Your task to perform on an android device: open app "Fetch Rewards" (install if not already installed) and go to login screen Image 0: 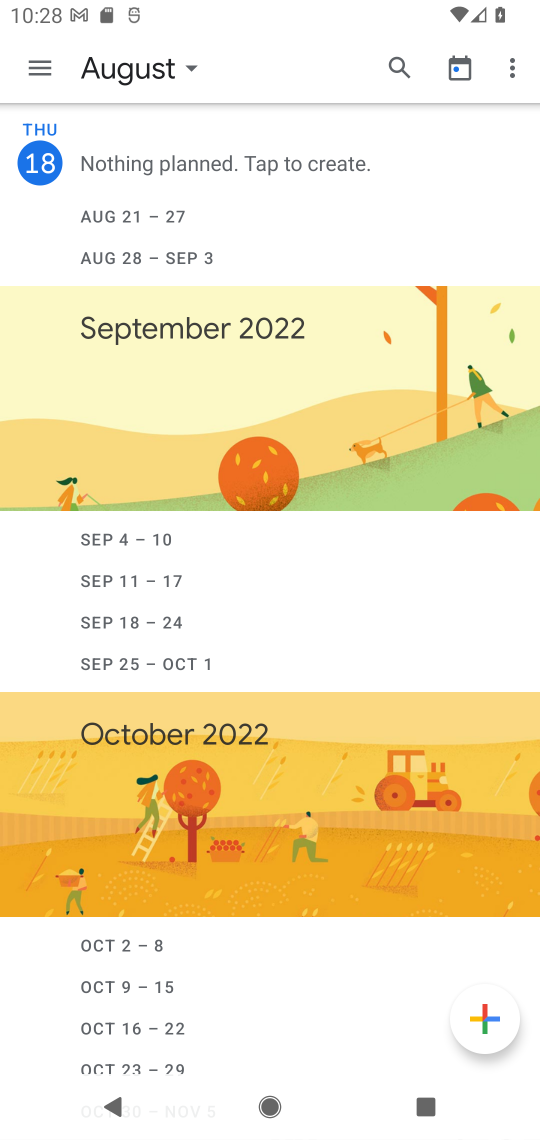
Step 0: press home button
Your task to perform on an android device: open app "Fetch Rewards" (install if not already installed) and go to login screen Image 1: 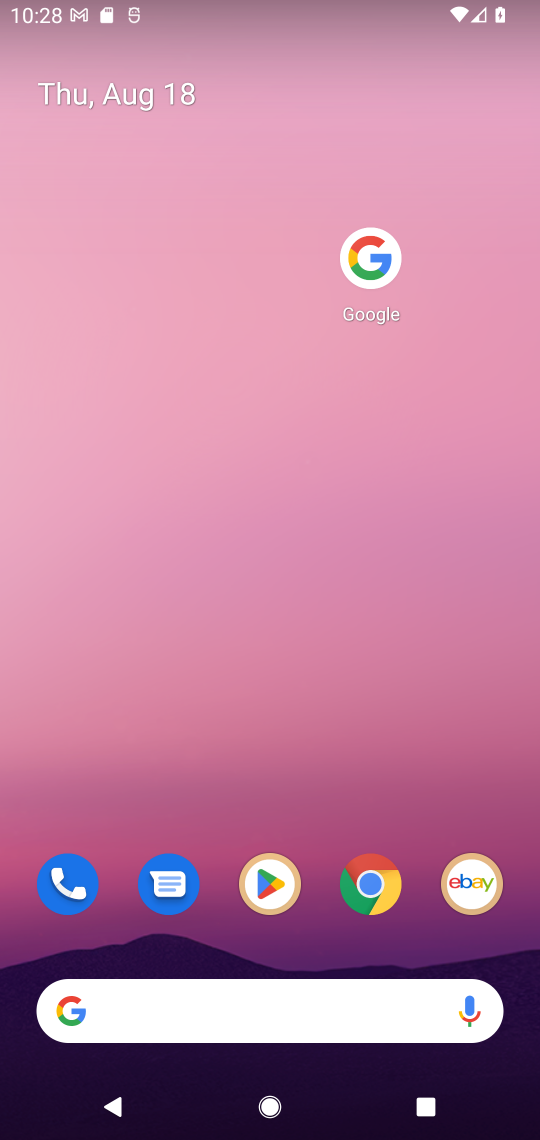
Step 1: click (291, 860)
Your task to perform on an android device: open app "Fetch Rewards" (install if not already installed) and go to login screen Image 2: 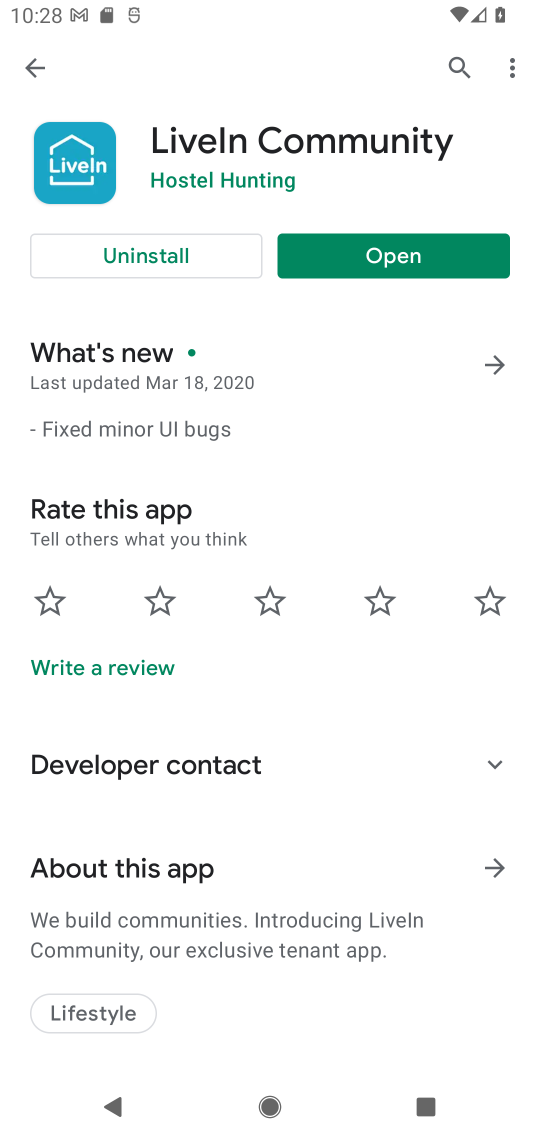
Step 2: click (461, 81)
Your task to perform on an android device: open app "Fetch Rewards" (install if not already installed) and go to login screen Image 3: 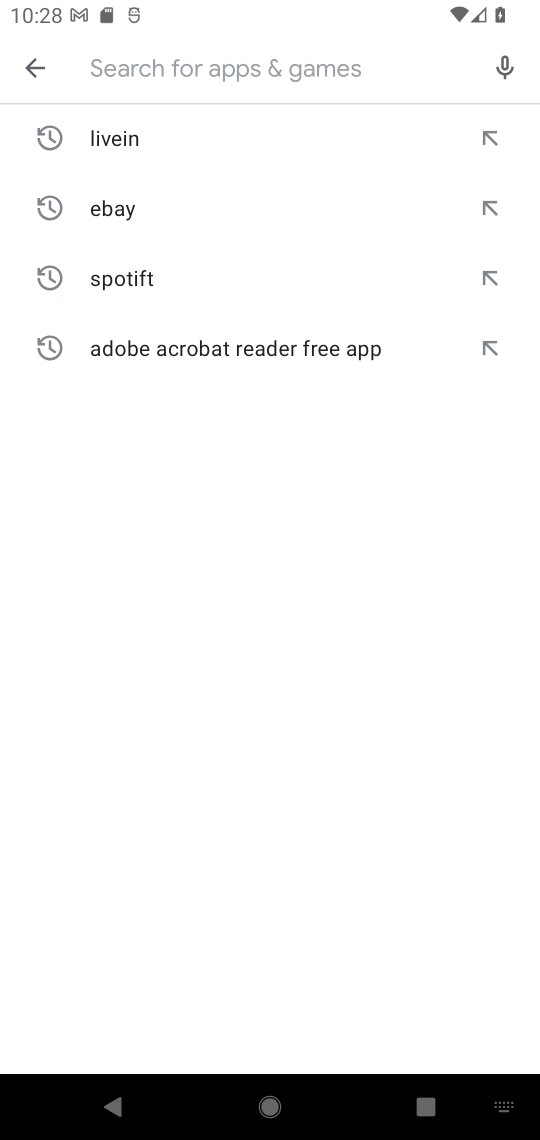
Step 3: type "fetch "
Your task to perform on an android device: open app "Fetch Rewards" (install if not already installed) and go to login screen Image 4: 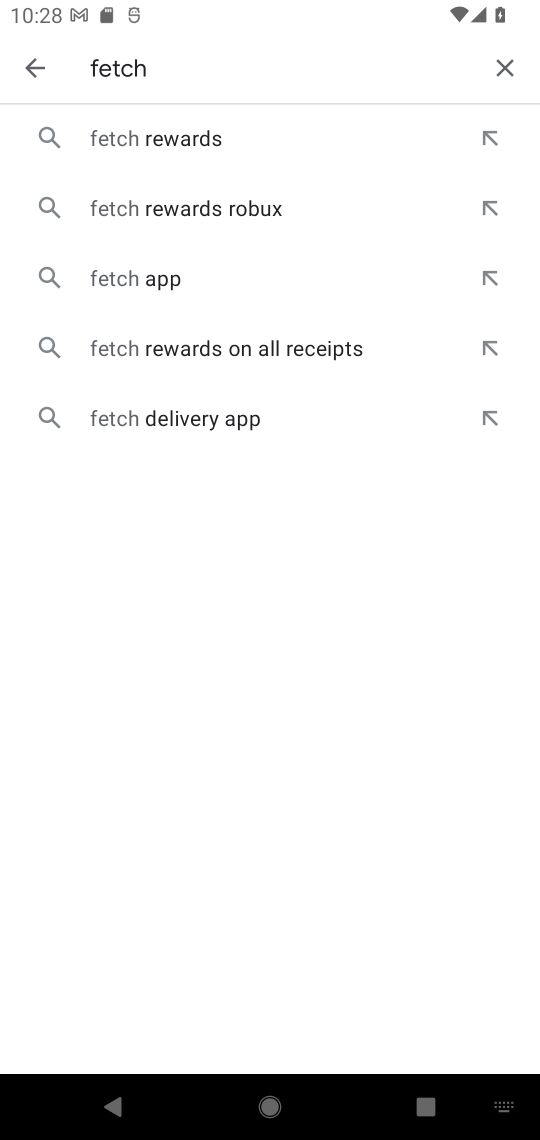
Step 4: click (207, 128)
Your task to perform on an android device: open app "Fetch Rewards" (install if not already installed) and go to login screen Image 5: 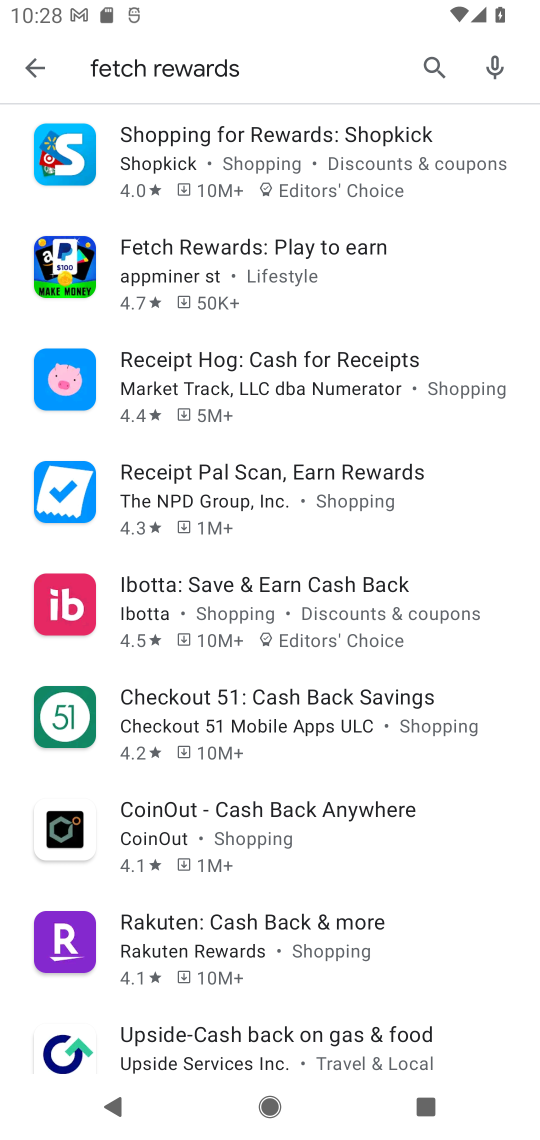
Step 5: click (244, 226)
Your task to perform on an android device: open app "Fetch Rewards" (install if not already installed) and go to login screen Image 6: 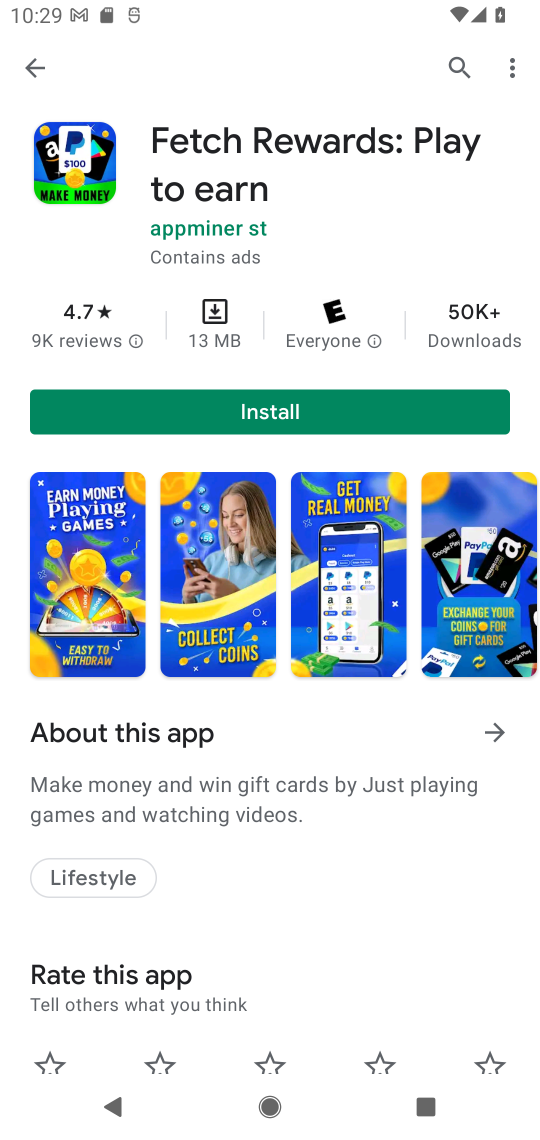
Step 6: click (278, 420)
Your task to perform on an android device: open app "Fetch Rewards" (install if not already installed) and go to login screen Image 7: 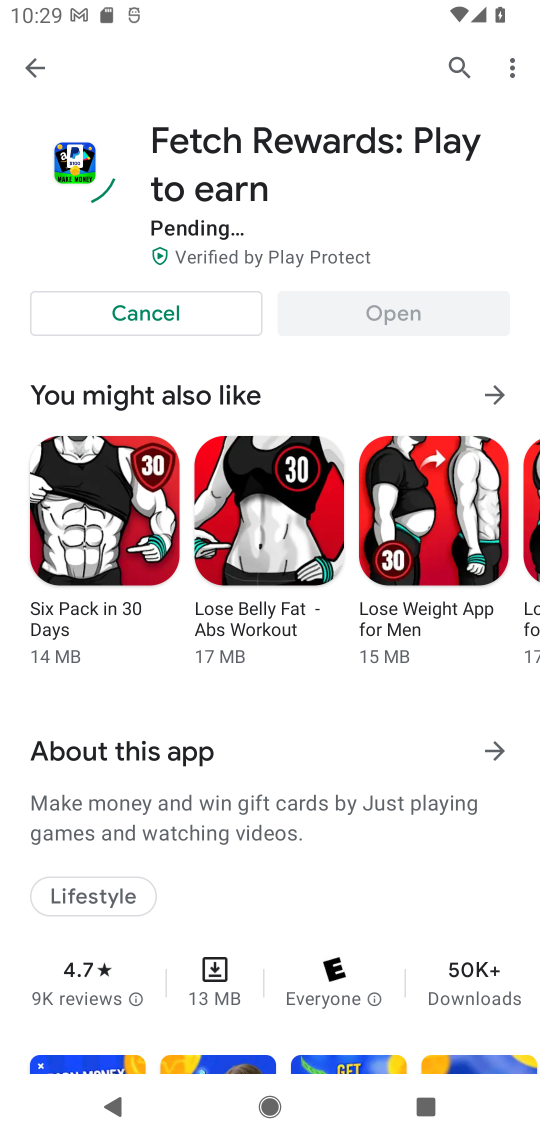
Step 7: task complete